Your task to perform on an android device: turn on sleep mode Image 0: 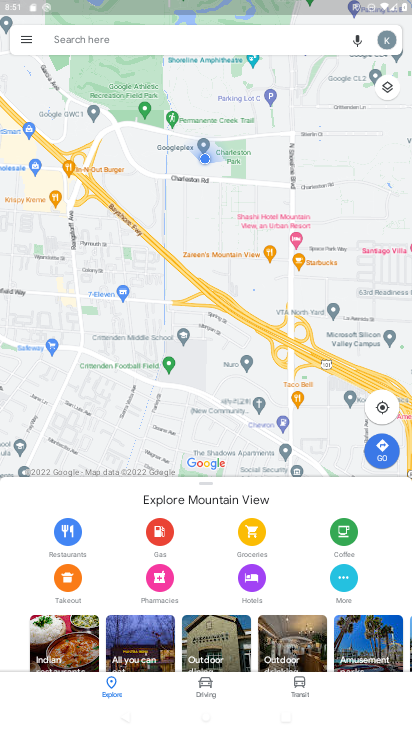
Step 0: press home button
Your task to perform on an android device: turn on sleep mode Image 1: 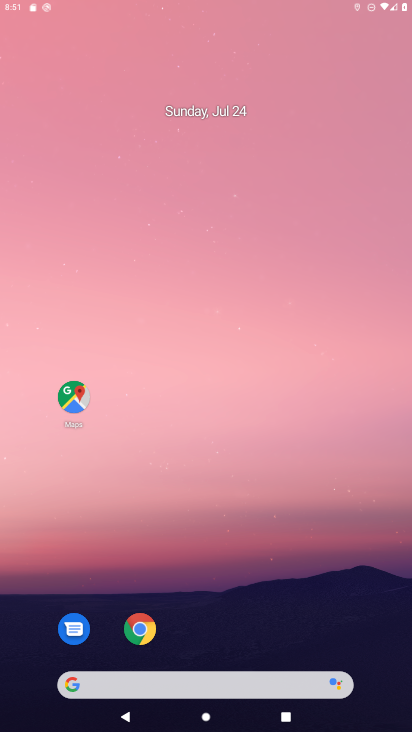
Step 1: drag from (391, 689) to (171, 0)
Your task to perform on an android device: turn on sleep mode Image 2: 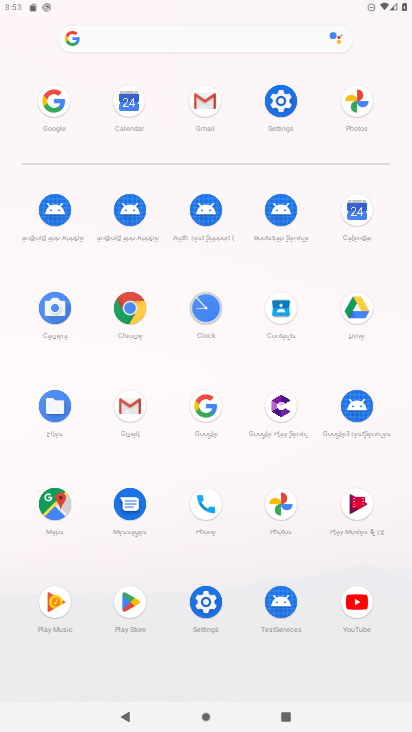
Step 2: click (203, 583)
Your task to perform on an android device: turn on sleep mode Image 3: 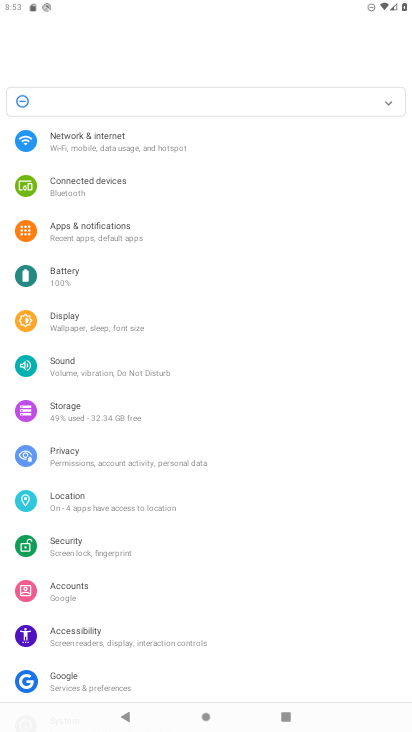
Step 3: task complete